Your task to perform on an android device: turn on showing notifications on the lock screen Image 0: 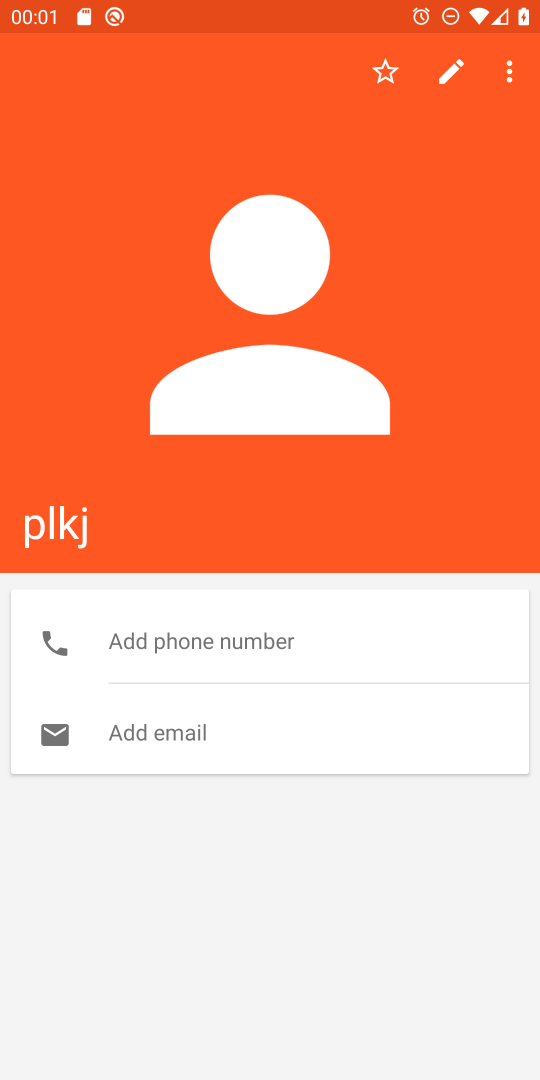
Step 0: press home button
Your task to perform on an android device: turn on showing notifications on the lock screen Image 1: 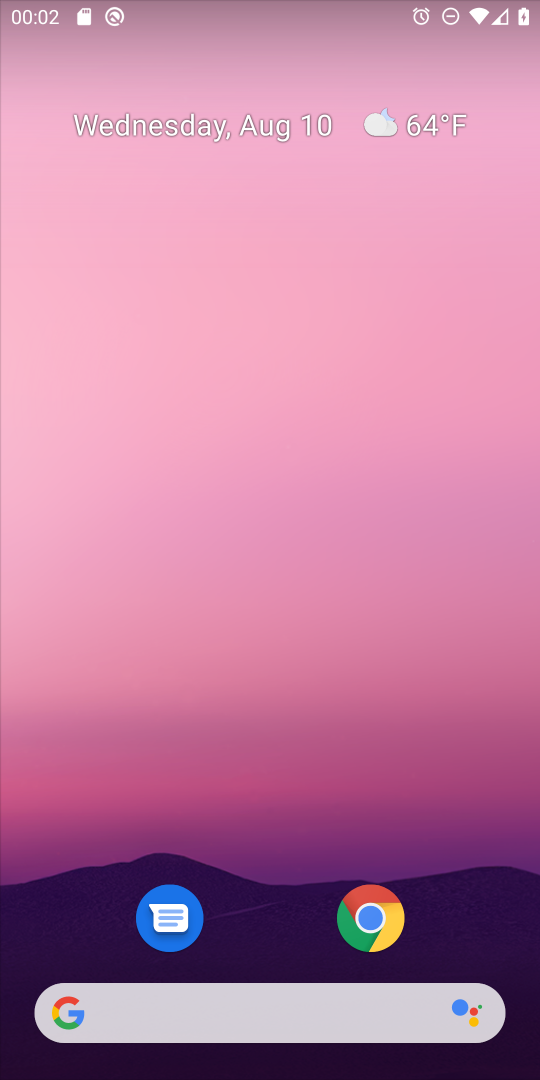
Step 1: drag from (262, 850) to (353, 130)
Your task to perform on an android device: turn on showing notifications on the lock screen Image 2: 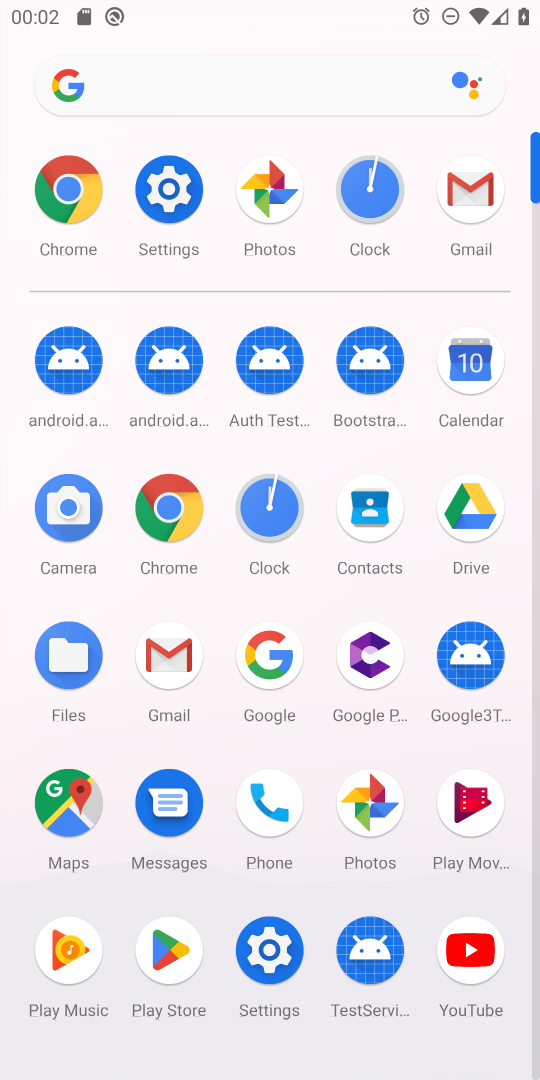
Step 2: click (270, 959)
Your task to perform on an android device: turn on showing notifications on the lock screen Image 3: 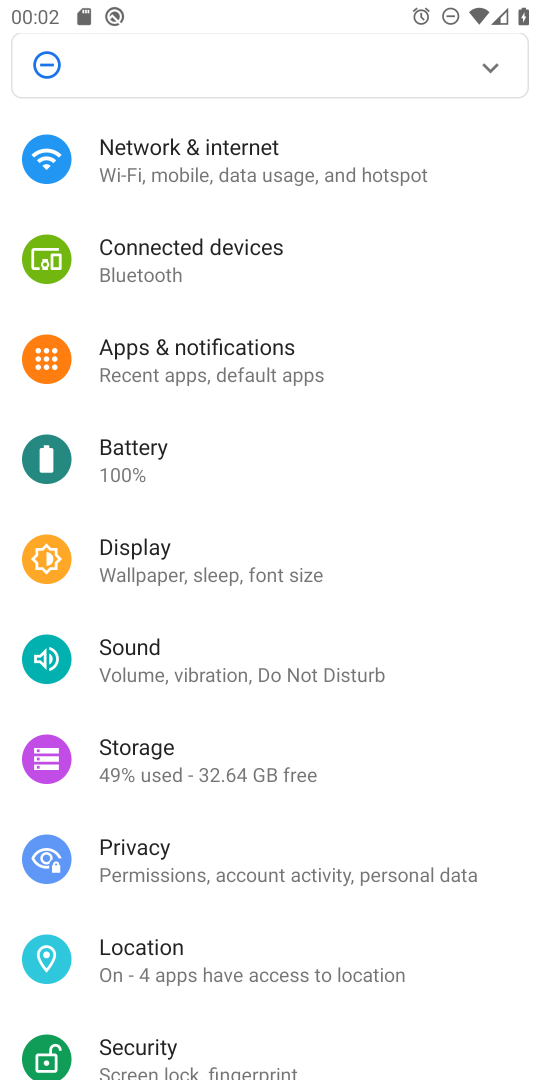
Step 3: click (244, 372)
Your task to perform on an android device: turn on showing notifications on the lock screen Image 4: 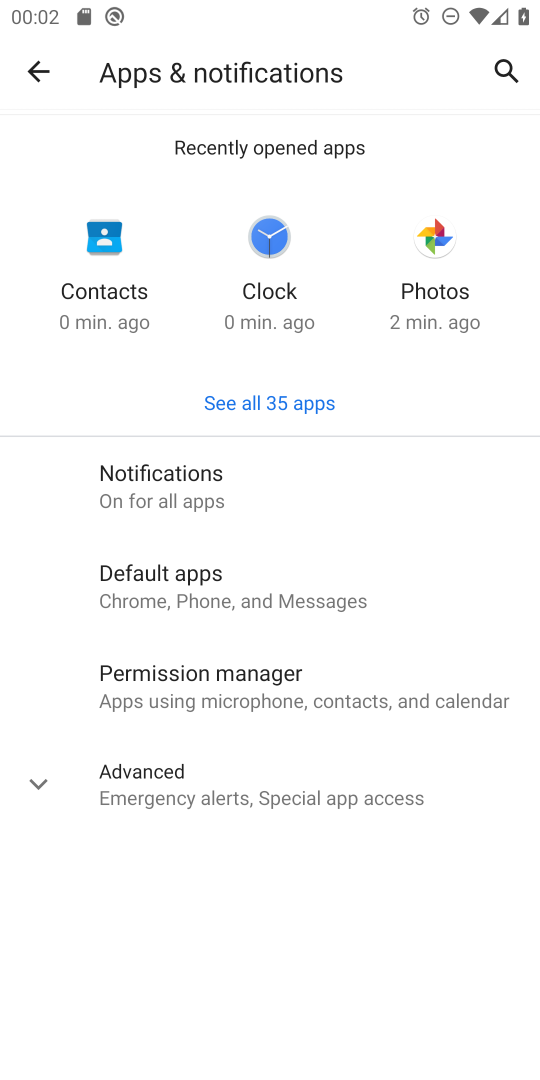
Step 4: click (167, 469)
Your task to perform on an android device: turn on showing notifications on the lock screen Image 5: 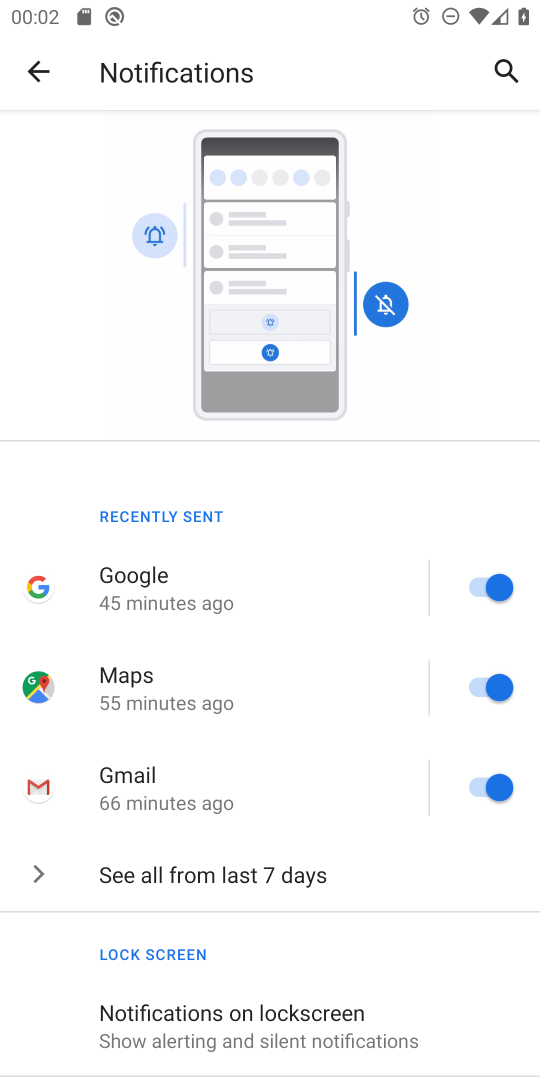
Step 5: click (210, 1051)
Your task to perform on an android device: turn on showing notifications on the lock screen Image 6: 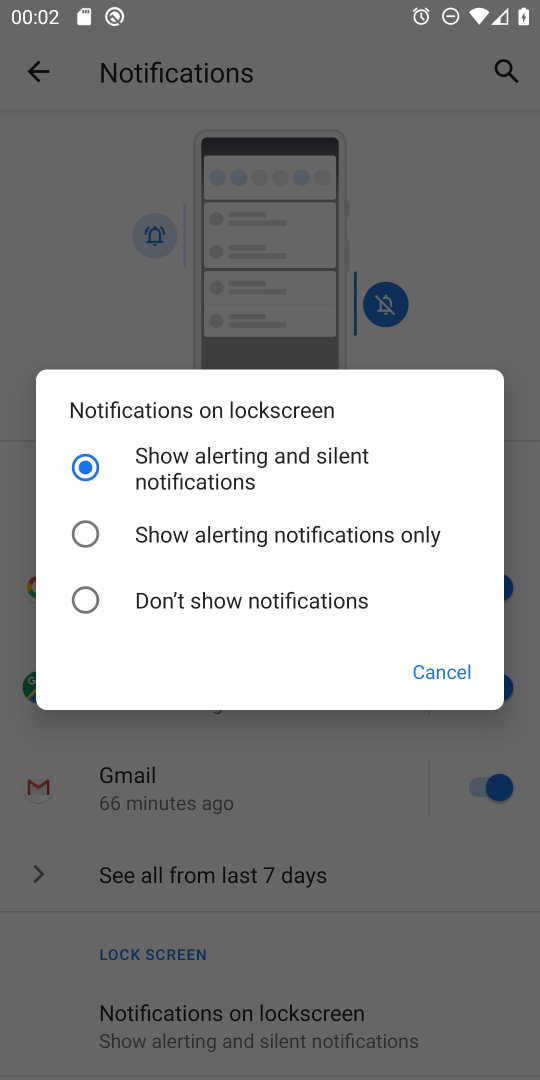
Step 6: click (268, 538)
Your task to perform on an android device: turn on showing notifications on the lock screen Image 7: 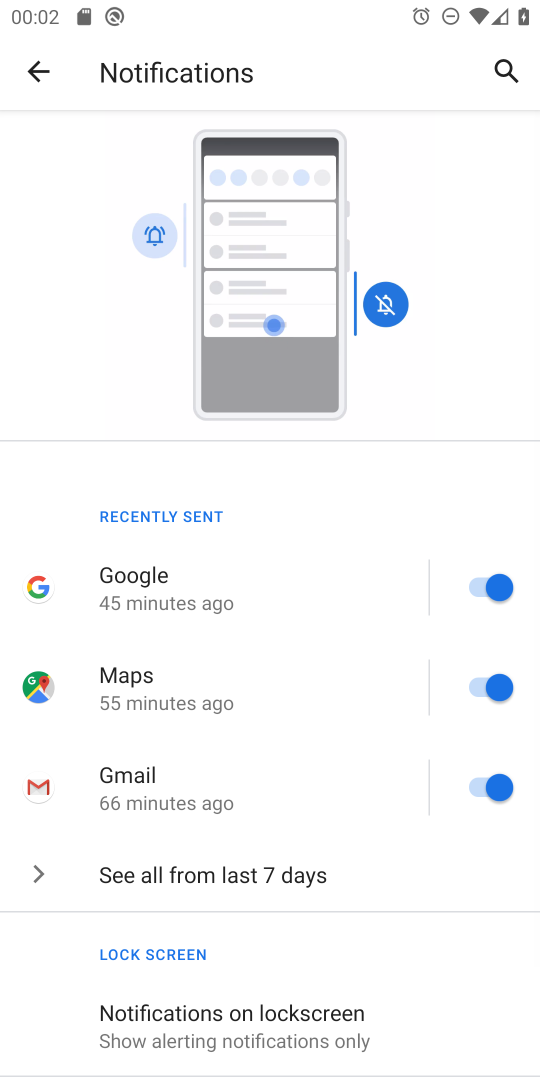
Step 7: task complete